Your task to perform on an android device: change text size in settings app Image 0: 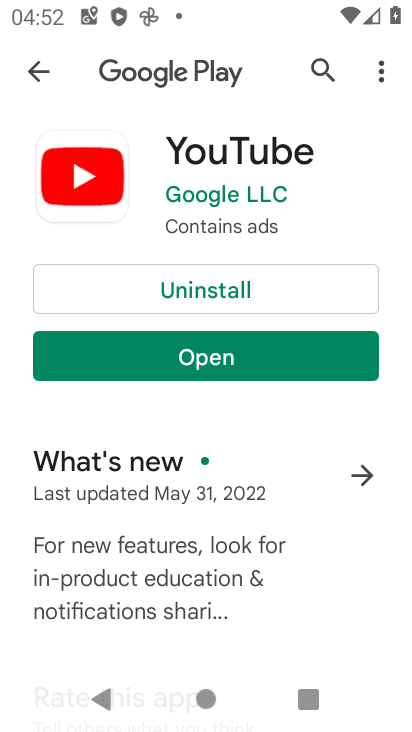
Step 0: press home button
Your task to perform on an android device: change text size in settings app Image 1: 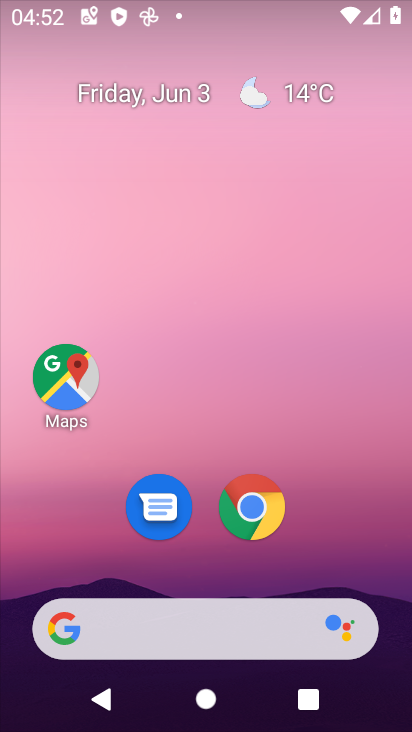
Step 1: drag from (350, 552) to (270, 163)
Your task to perform on an android device: change text size in settings app Image 2: 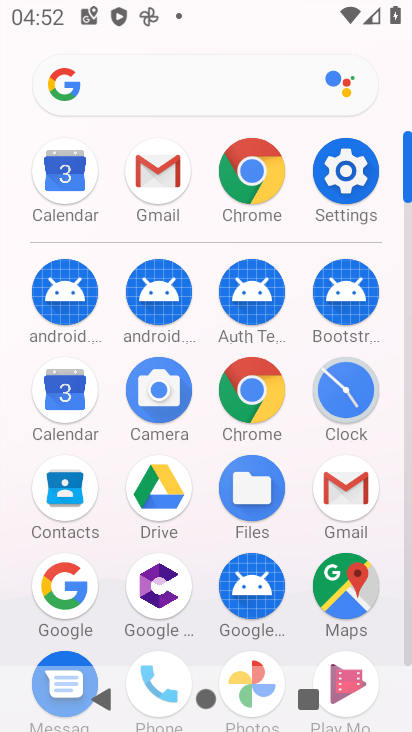
Step 2: click (351, 191)
Your task to perform on an android device: change text size in settings app Image 3: 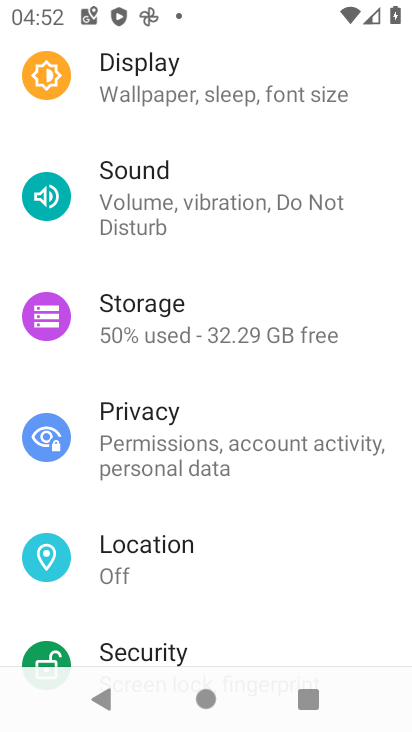
Step 3: drag from (328, 630) to (261, 45)
Your task to perform on an android device: change text size in settings app Image 4: 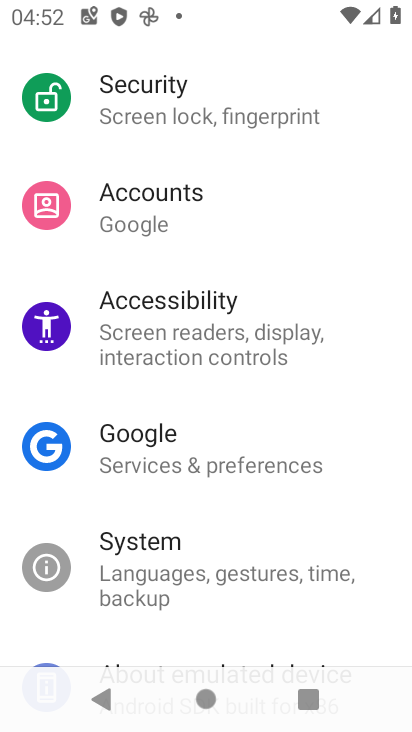
Step 4: drag from (336, 163) to (353, 713)
Your task to perform on an android device: change text size in settings app Image 5: 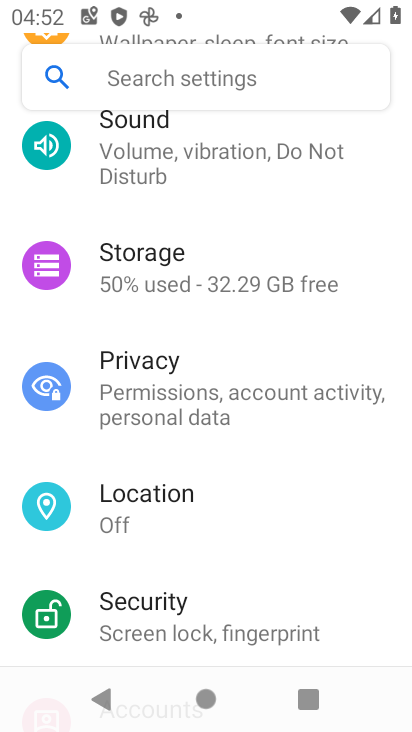
Step 5: drag from (329, 220) to (347, 455)
Your task to perform on an android device: change text size in settings app Image 6: 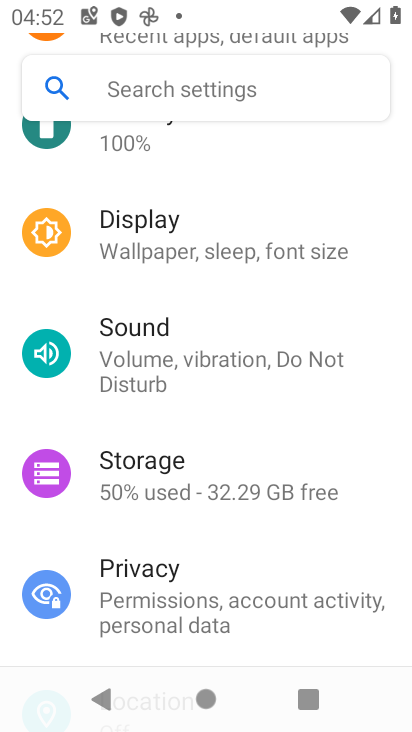
Step 6: click (281, 268)
Your task to perform on an android device: change text size in settings app Image 7: 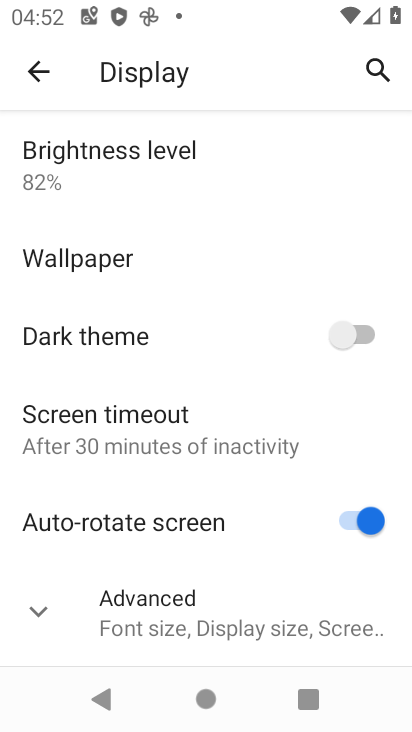
Step 7: click (44, 629)
Your task to perform on an android device: change text size in settings app Image 8: 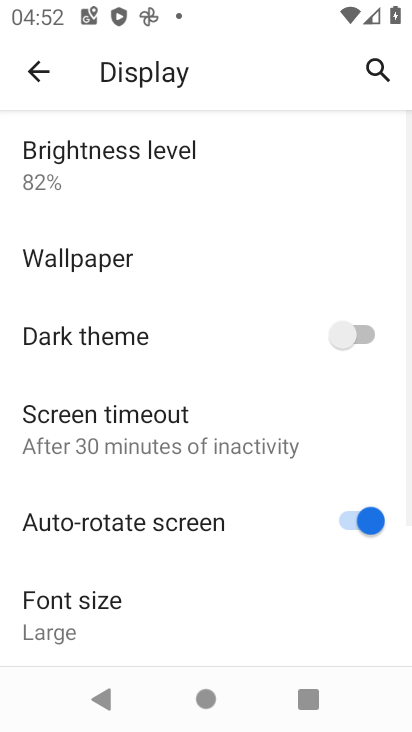
Step 8: click (126, 634)
Your task to perform on an android device: change text size in settings app Image 9: 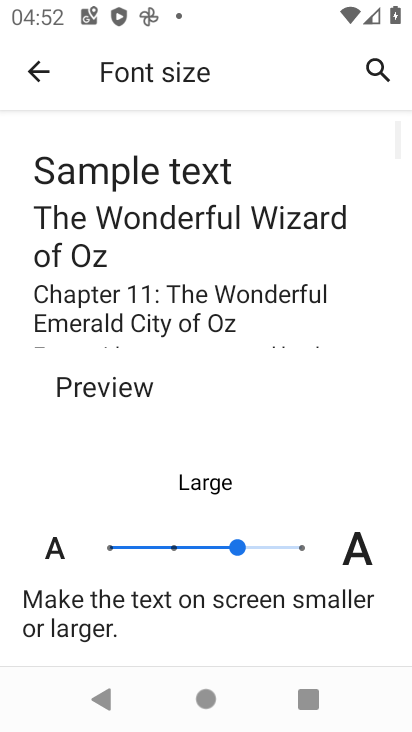
Step 9: click (175, 552)
Your task to perform on an android device: change text size in settings app Image 10: 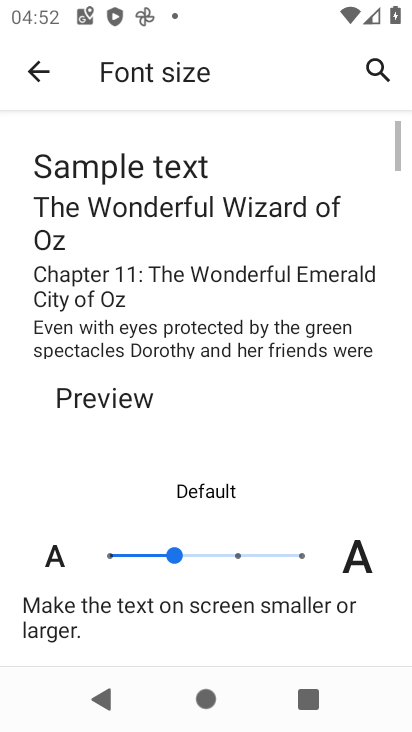
Step 10: task complete